Your task to perform on an android device: turn off data saver in the chrome app Image 0: 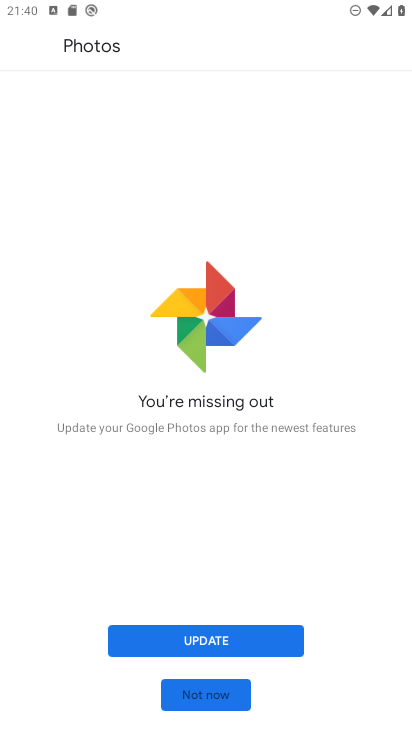
Step 0: press home button
Your task to perform on an android device: turn off data saver in the chrome app Image 1: 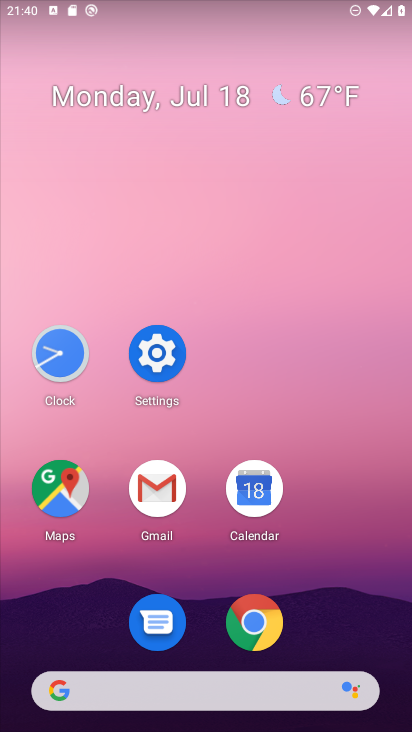
Step 1: click (242, 621)
Your task to perform on an android device: turn off data saver in the chrome app Image 2: 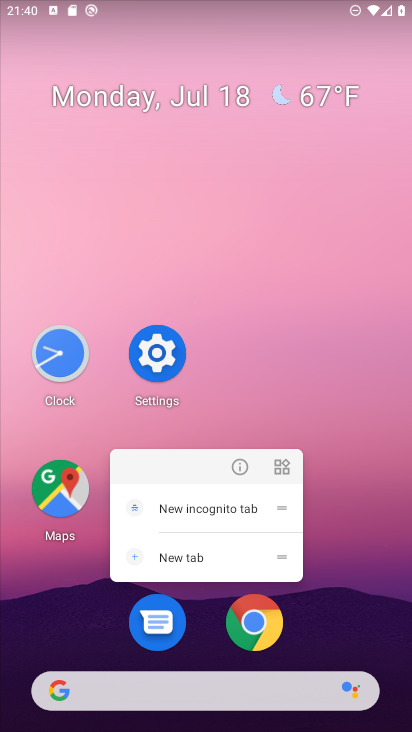
Step 2: click (245, 616)
Your task to perform on an android device: turn off data saver in the chrome app Image 3: 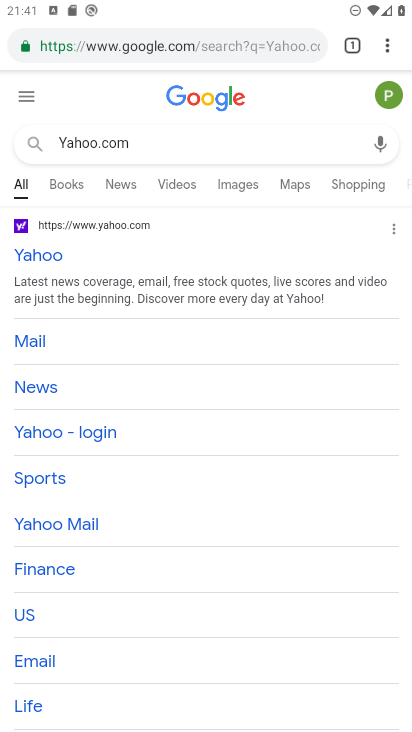
Step 3: click (387, 47)
Your task to perform on an android device: turn off data saver in the chrome app Image 4: 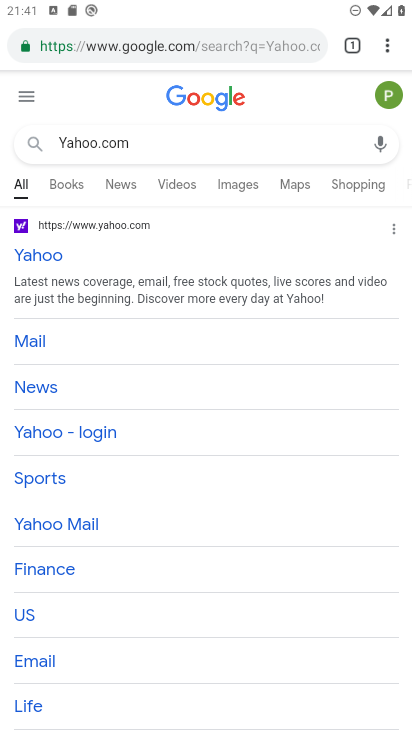
Step 4: click (387, 48)
Your task to perform on an android device: turn off data saver in the chrome app Image 5: 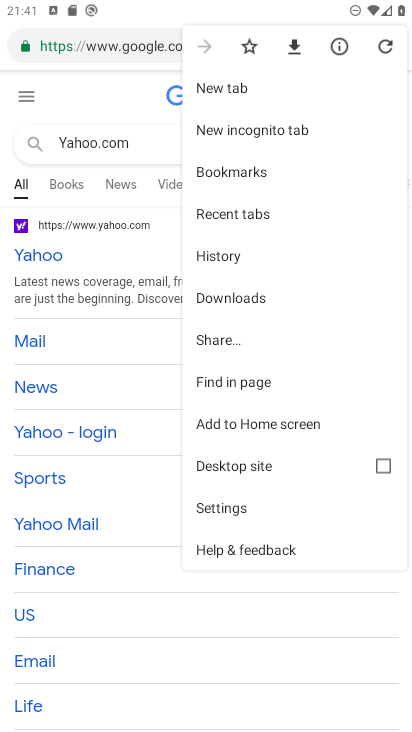
Step 5: click (227, 502)
Your task to perform on an android device: turn off data saver in the chrome app Image 6: 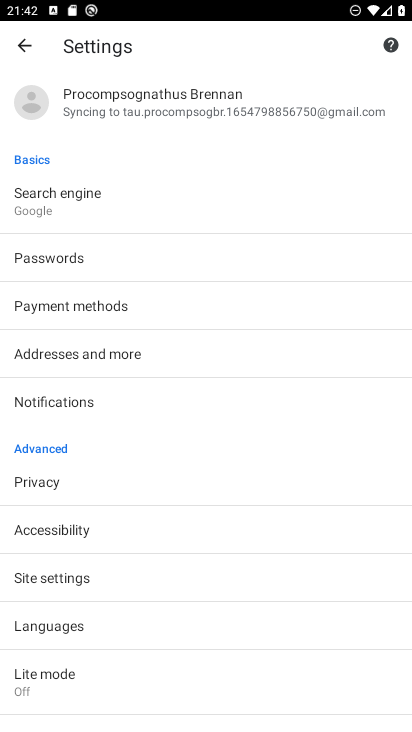
Step 6: click (66, 667)
Your task to perform on an android device: turn off data saver in the chrome app Image 7: 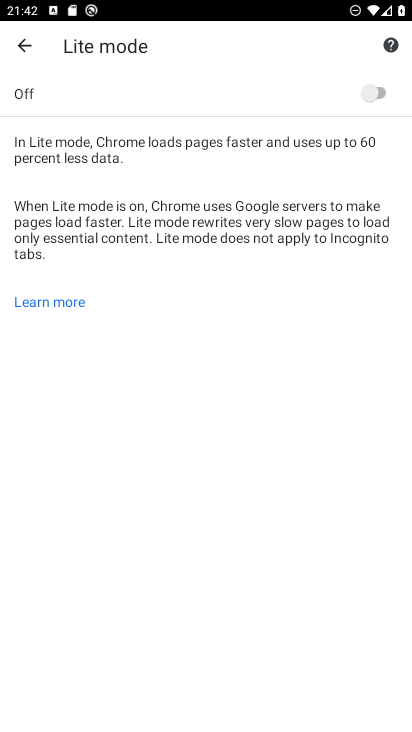
Step 7: task complete